Your task to perform on an android device: Go to calendar. Show me events next week Image 0: 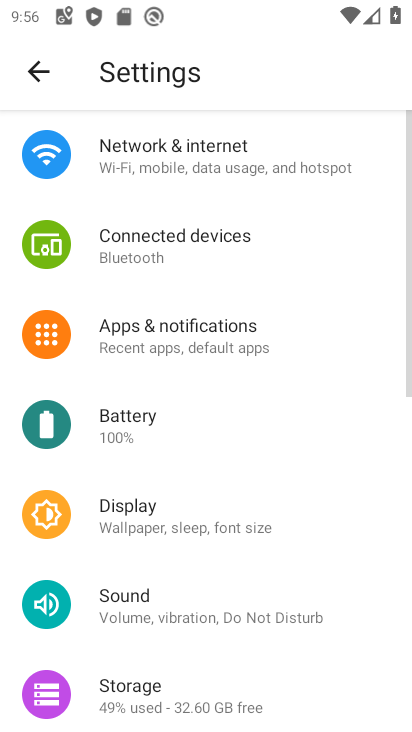
Step 0: press home button
Your task to perform on an android device: Go to calendar. Show me events next week Image 1: 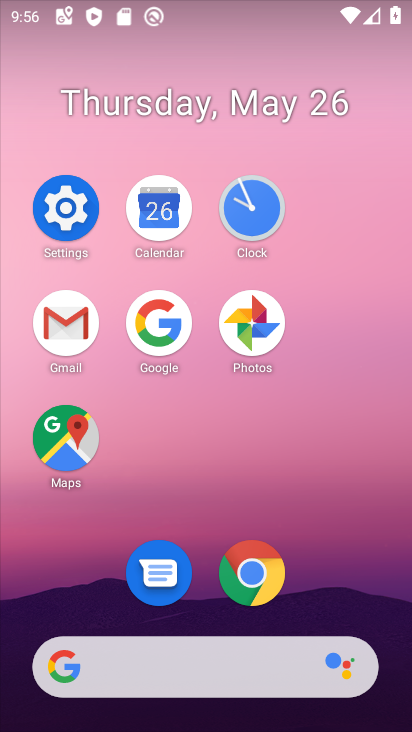
Step 1: click (168, 226)
Your task to perform on an android device: Go to calendar. Show me events next week Image 2: 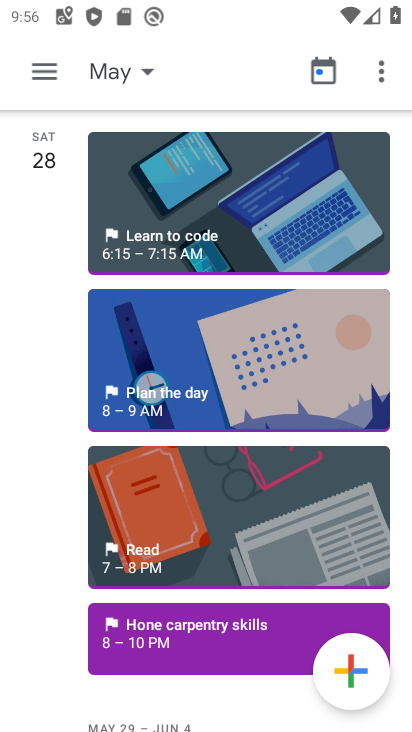
Step 2: click (104, 57)
Your task to perform on an android device: Go to calendar. Show me events next week Image 3: 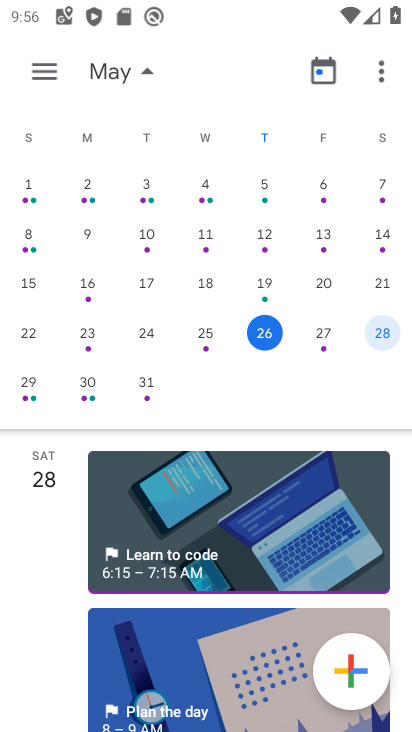
Step 3: click (37, 63)
Your task to perform on an android device: Go to calendar. Show me events next week Image 4: 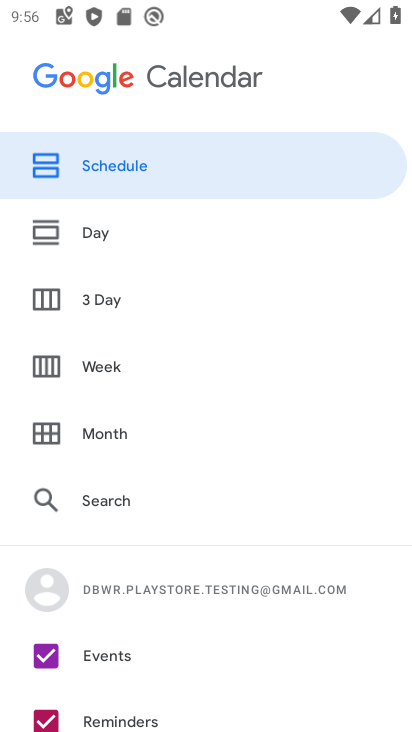
Step 4: click (157, 372)
Your task to perform on an android device: Go to calendar. Show me events next week Image 5: 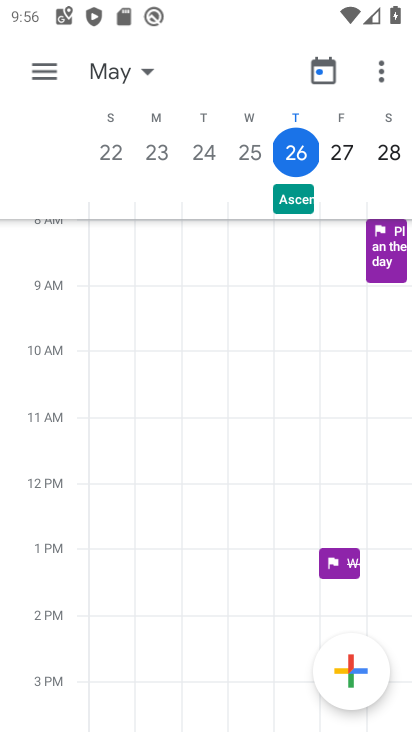
Step 5: task complete